Your task to perform on an android device: Open Google Maps and go to "Timeline" Image 0: 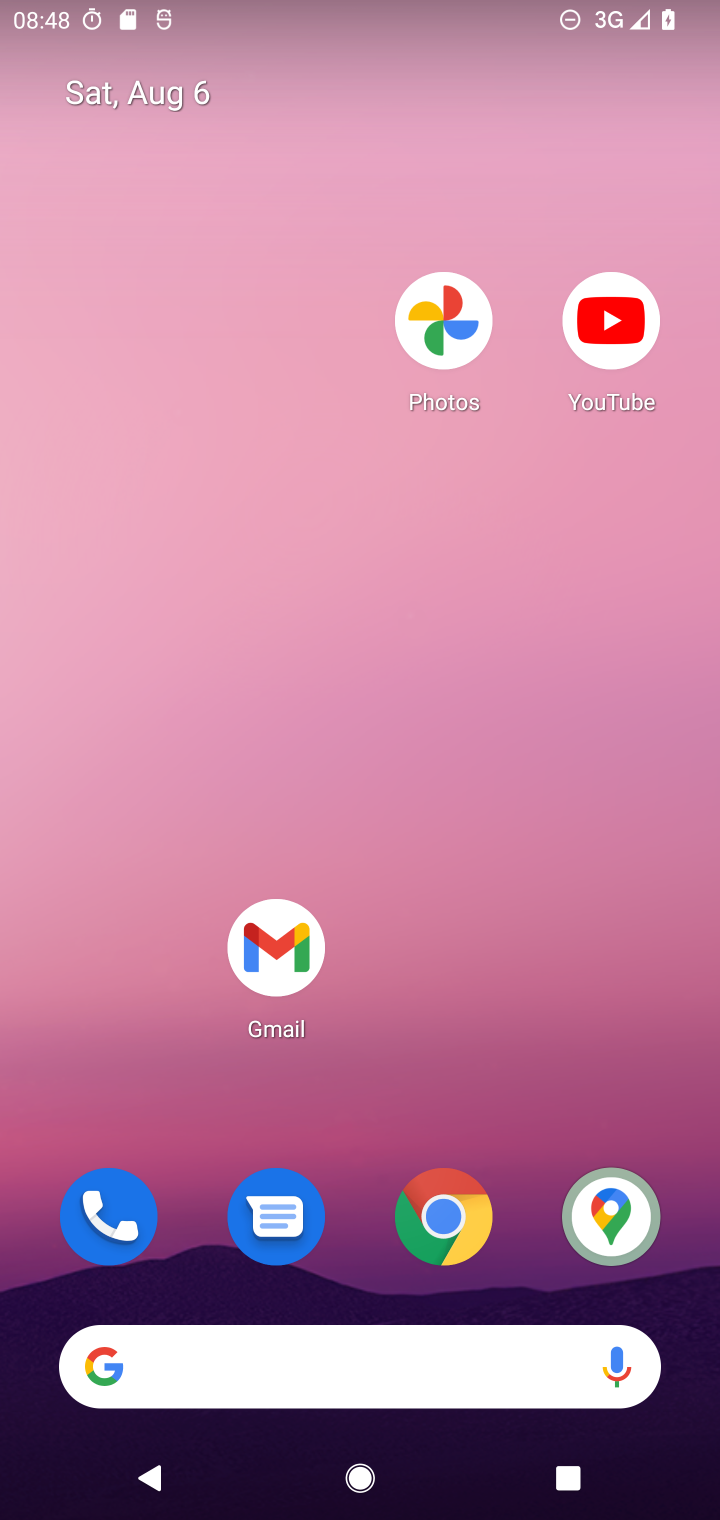
Step 0: drag from (517, 1075) to (565, 260)
Your task to perform on an android device: Open Google Maps and go to "Timeline" Image 1: 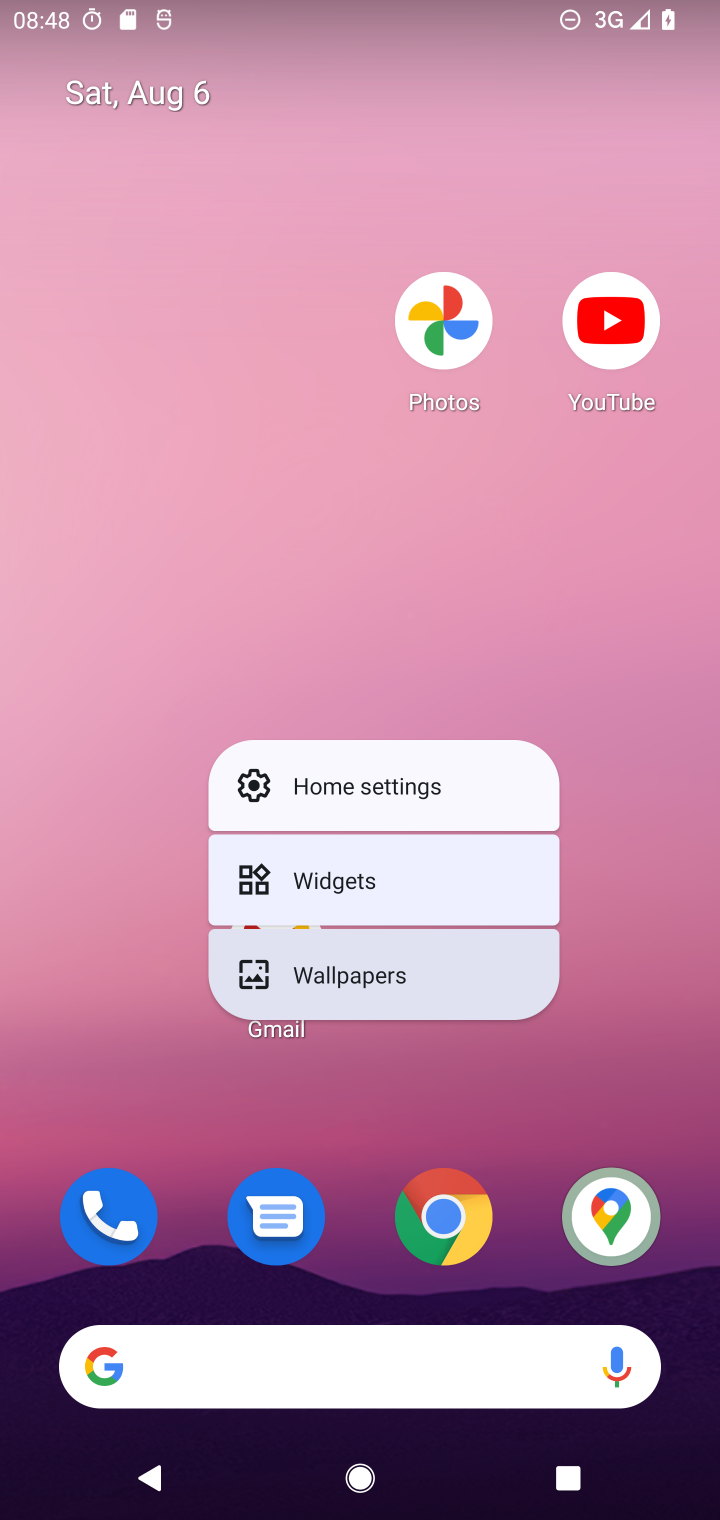
Step 1: click (204, 479)
Your task to perform on an android device: Open Google Maps and go to "Timeline" Image 2: 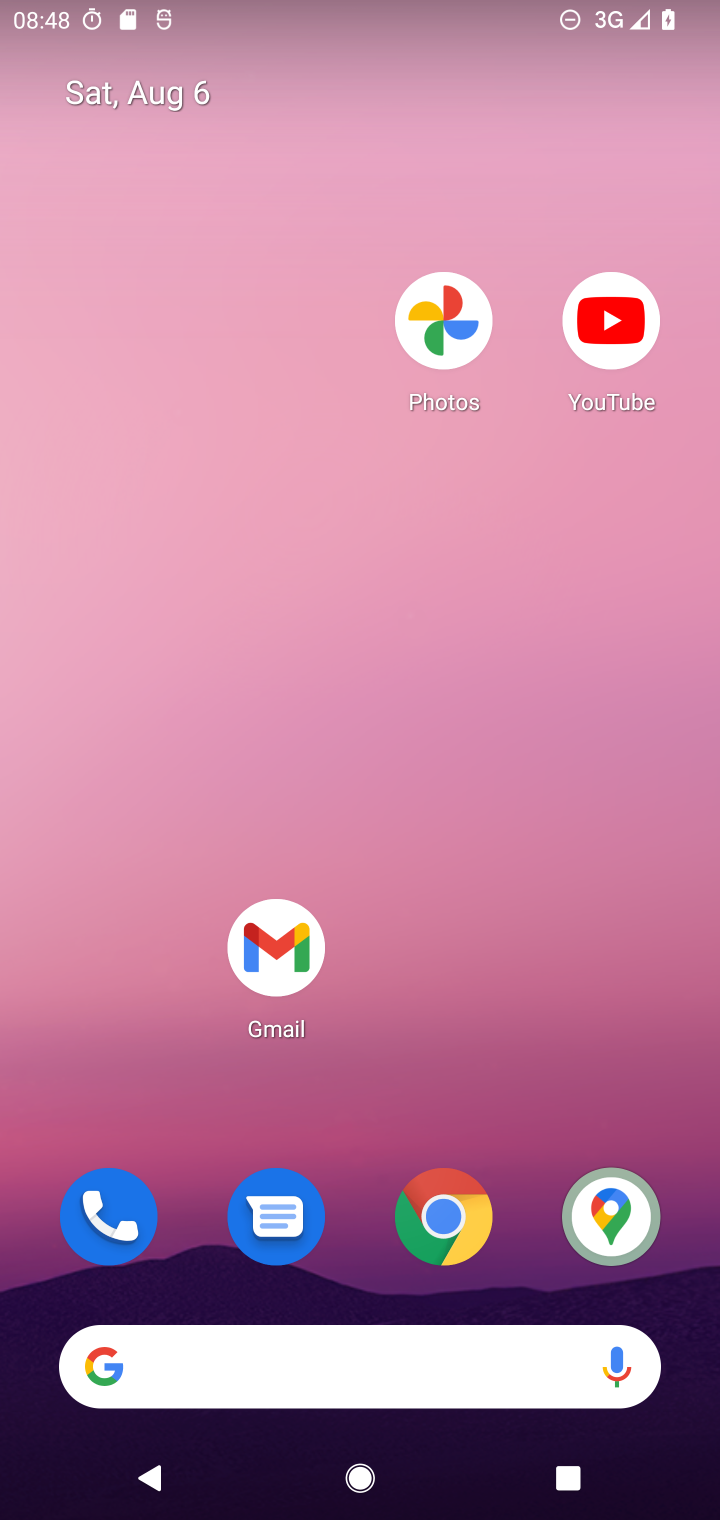
Step 2: click (534, 1110)
Your task to perform on an android device: Open Google Maps and go to "Timeline" Image 3: 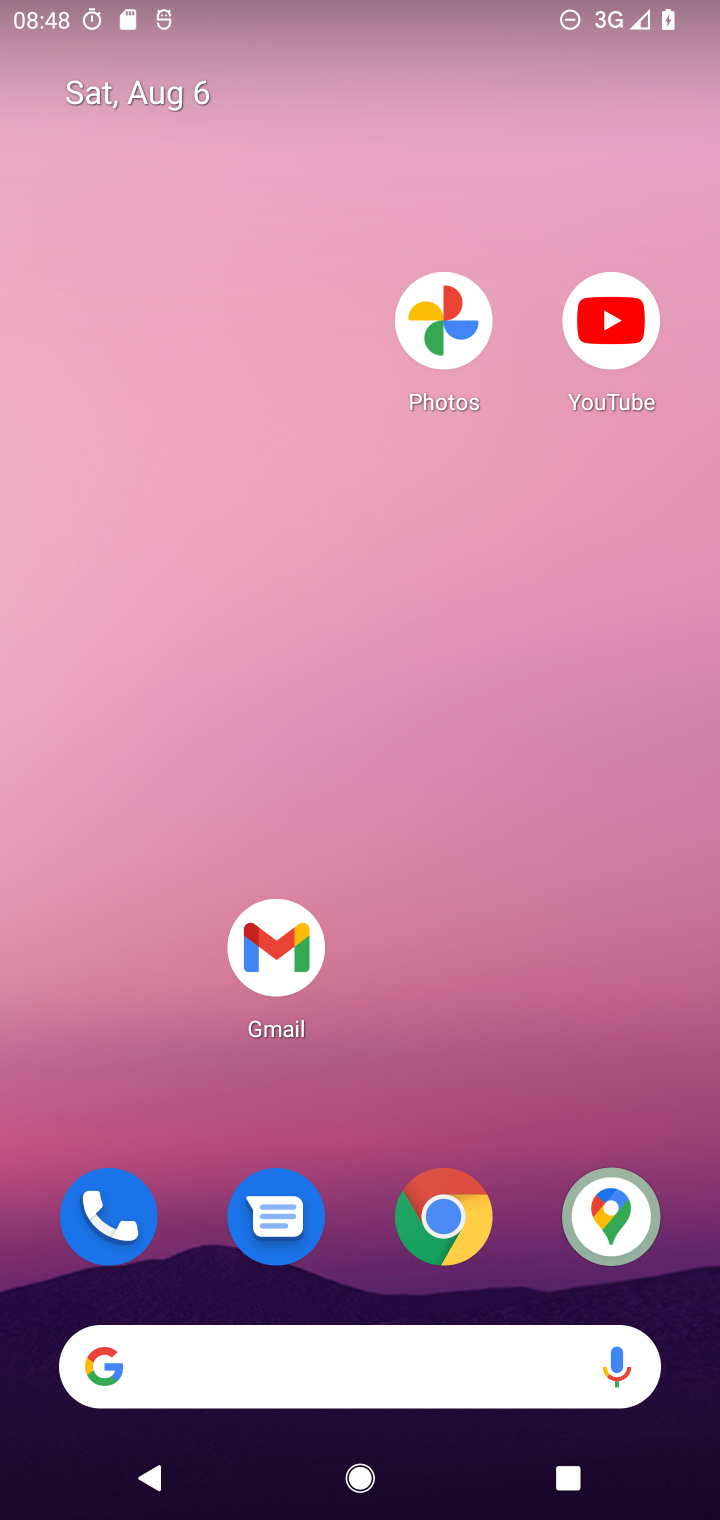
Step 3: drag from (529, 1138) to (522, 128)
Your task to perform on an android device: Open Google Maps and go to "Timeline" Image 4: 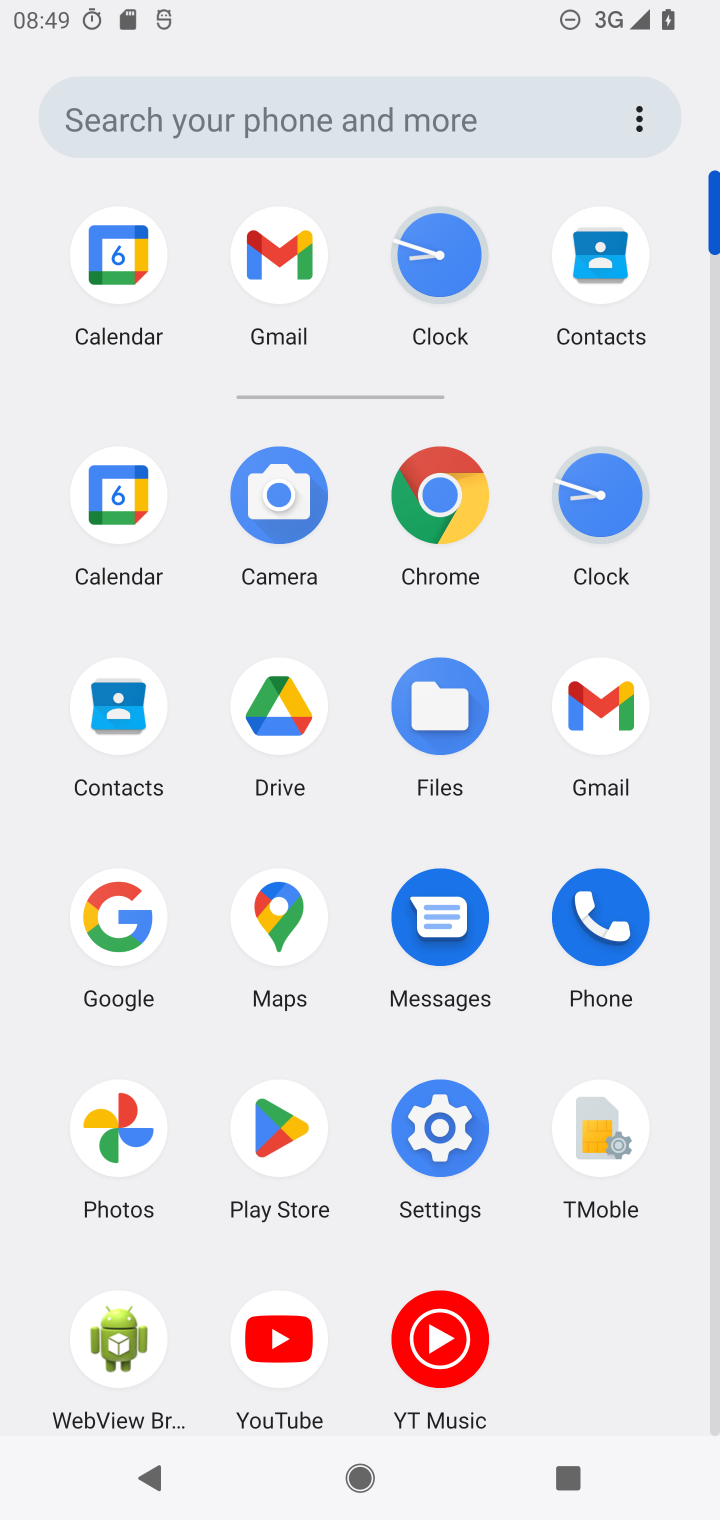
Step 4: click (285, 917)
Your task to perform on an android device: Open Google Maps and go to "Timeline" Image 5: 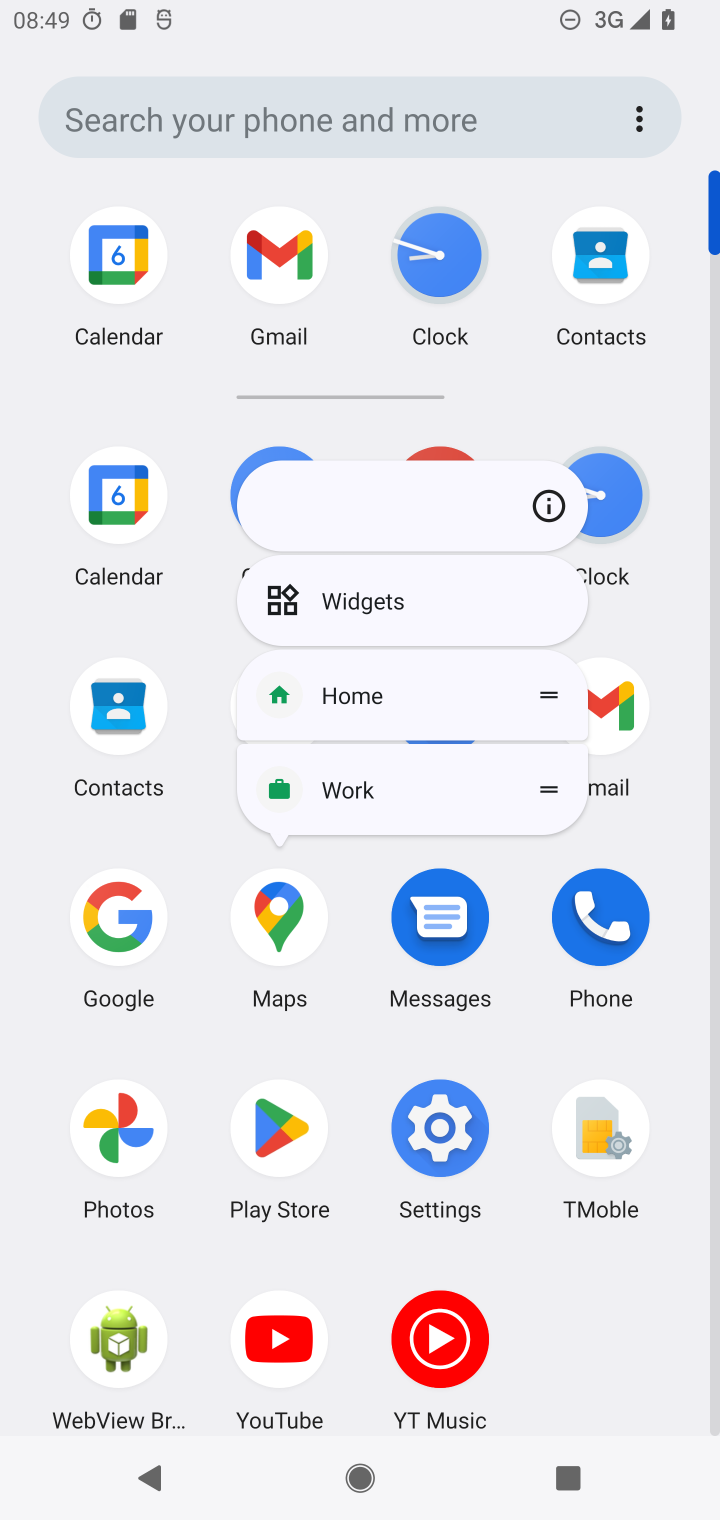
Step 5: click (280, 896)
Your task to perform on an android device: Open Google Maps and go to "Timeline" Image 6: 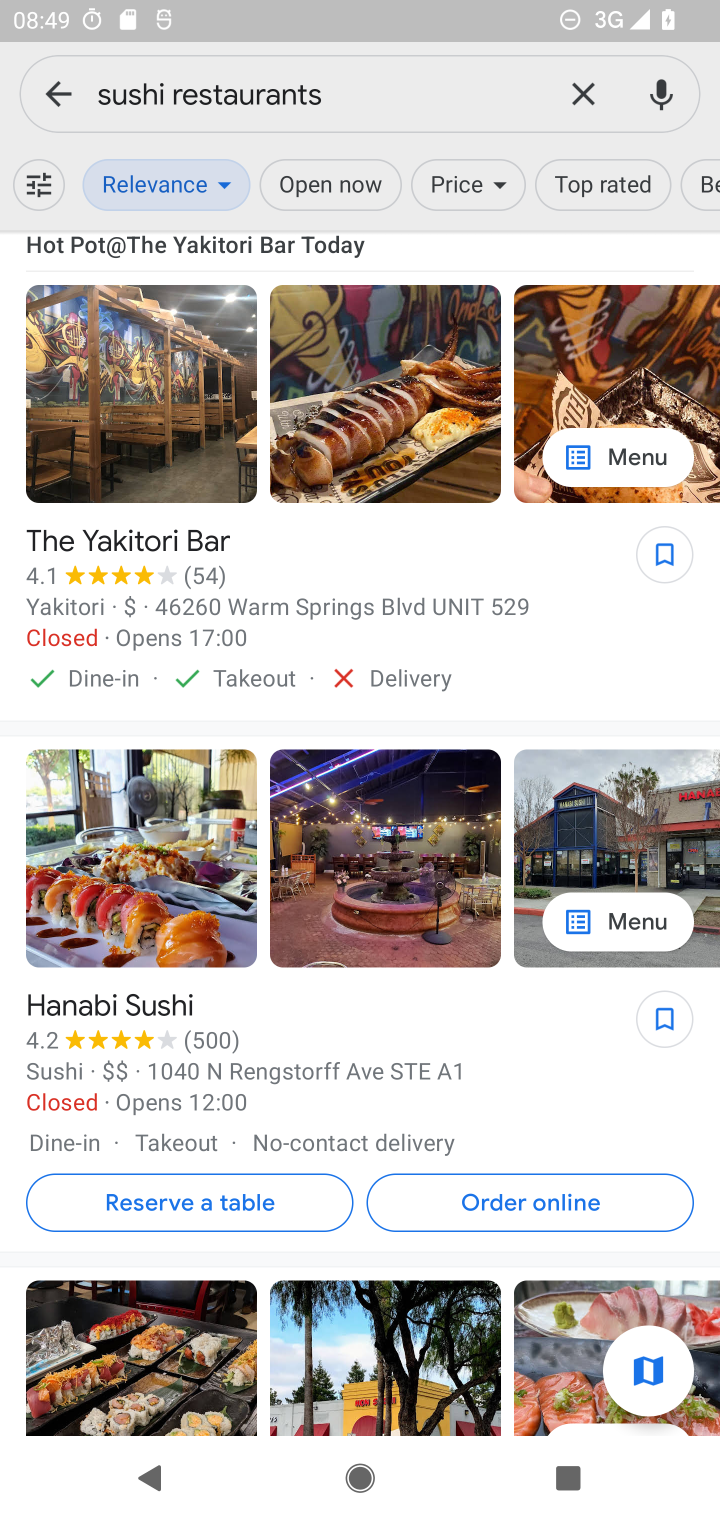
Step 6: press back button
Your task to perform on an android device: Open Google Maps and go to "Timeline" Image 7: 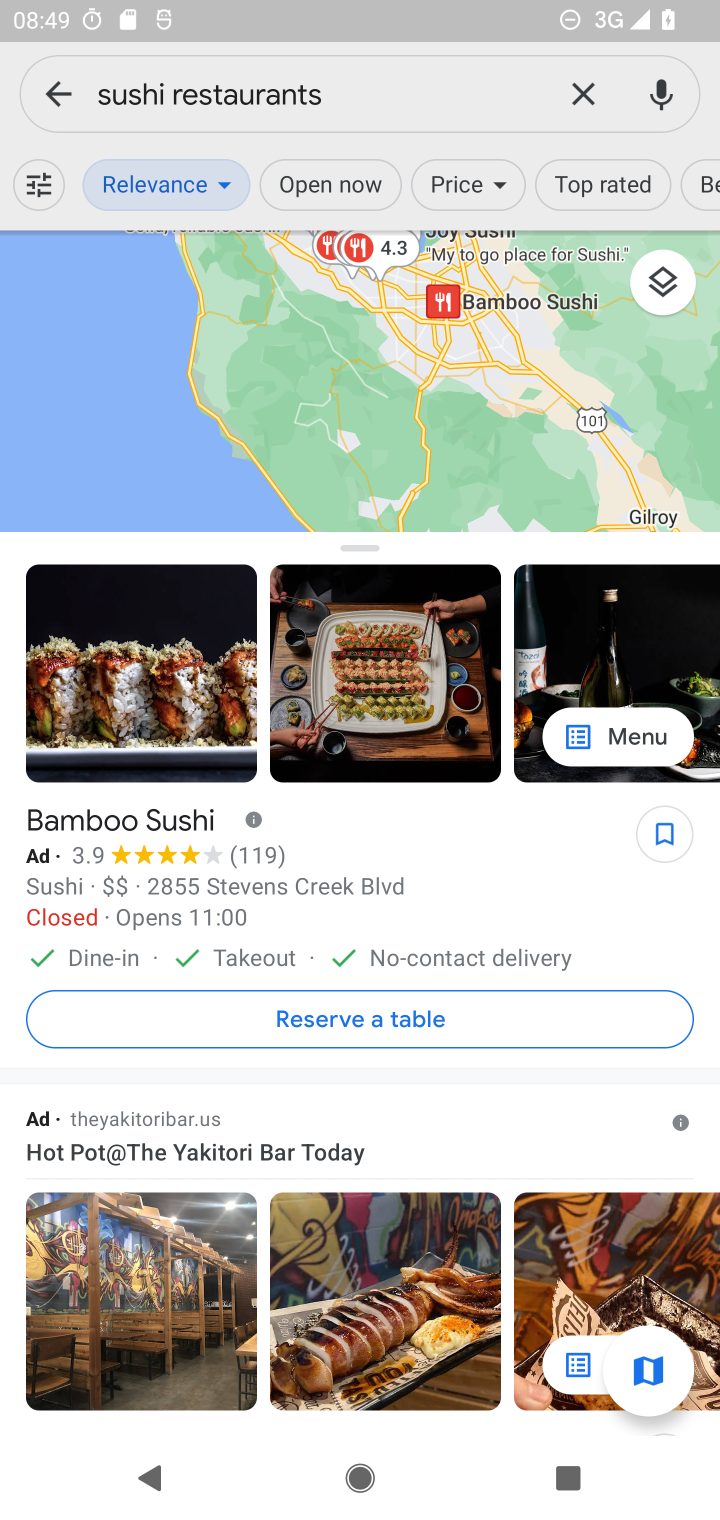
Step 7: press back button
Your task to perform on an android device: Open Google Maps and go to "Timeline" Image 8: 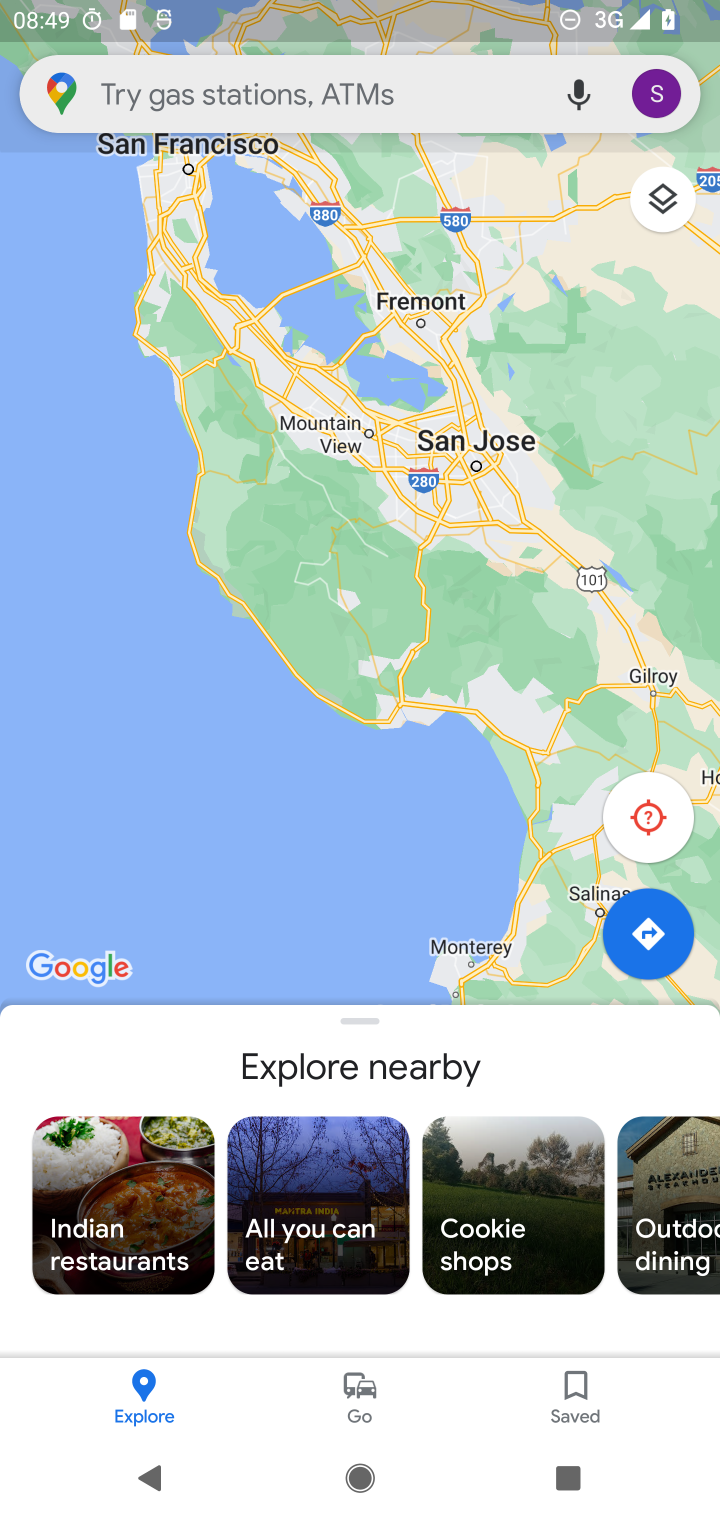
Step 8: click (653, 86)
Your task to perform on an android device: Open Google Maps and go to "Timeline" Image 9: 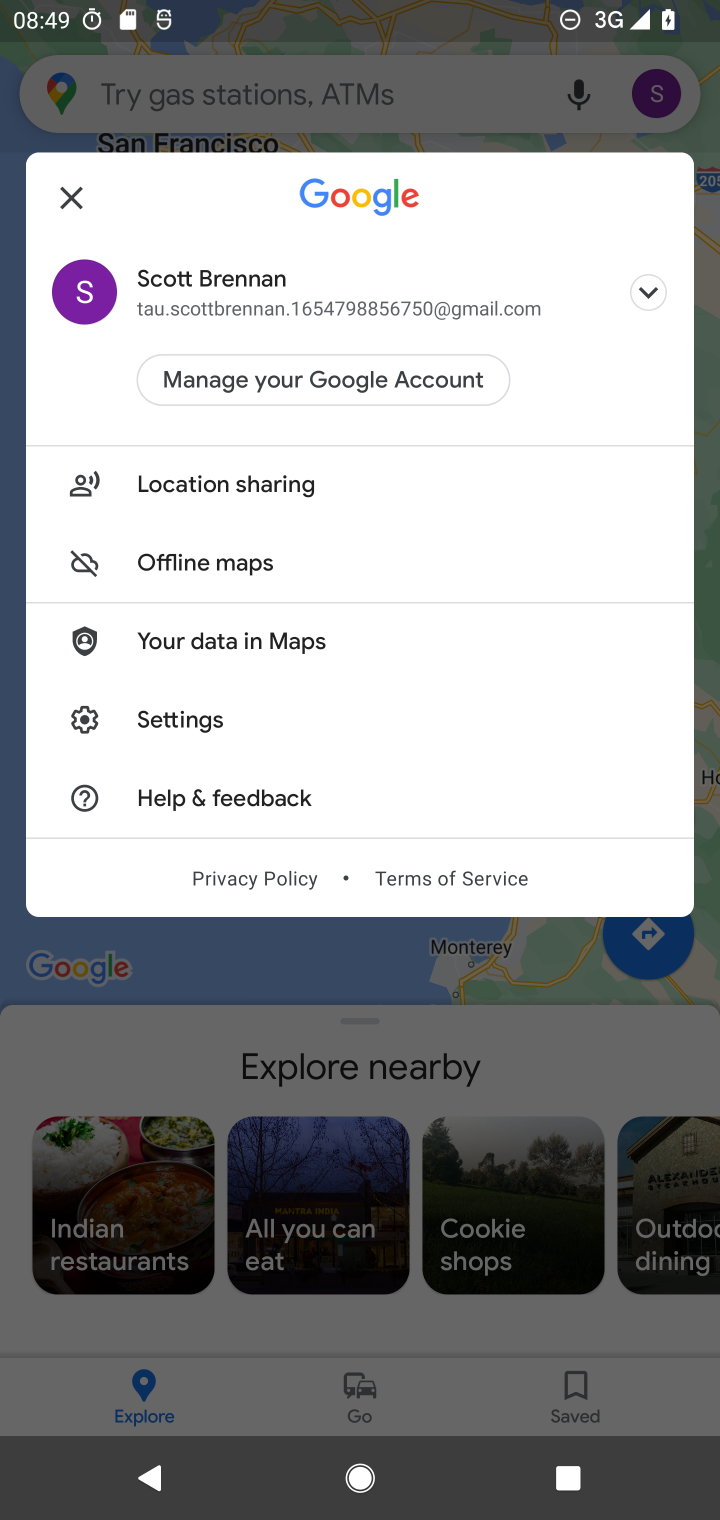
Step 9: click (314, 658)
Your task to perform on an android device: Open Google Maps and go to "Timeline" Image 10: 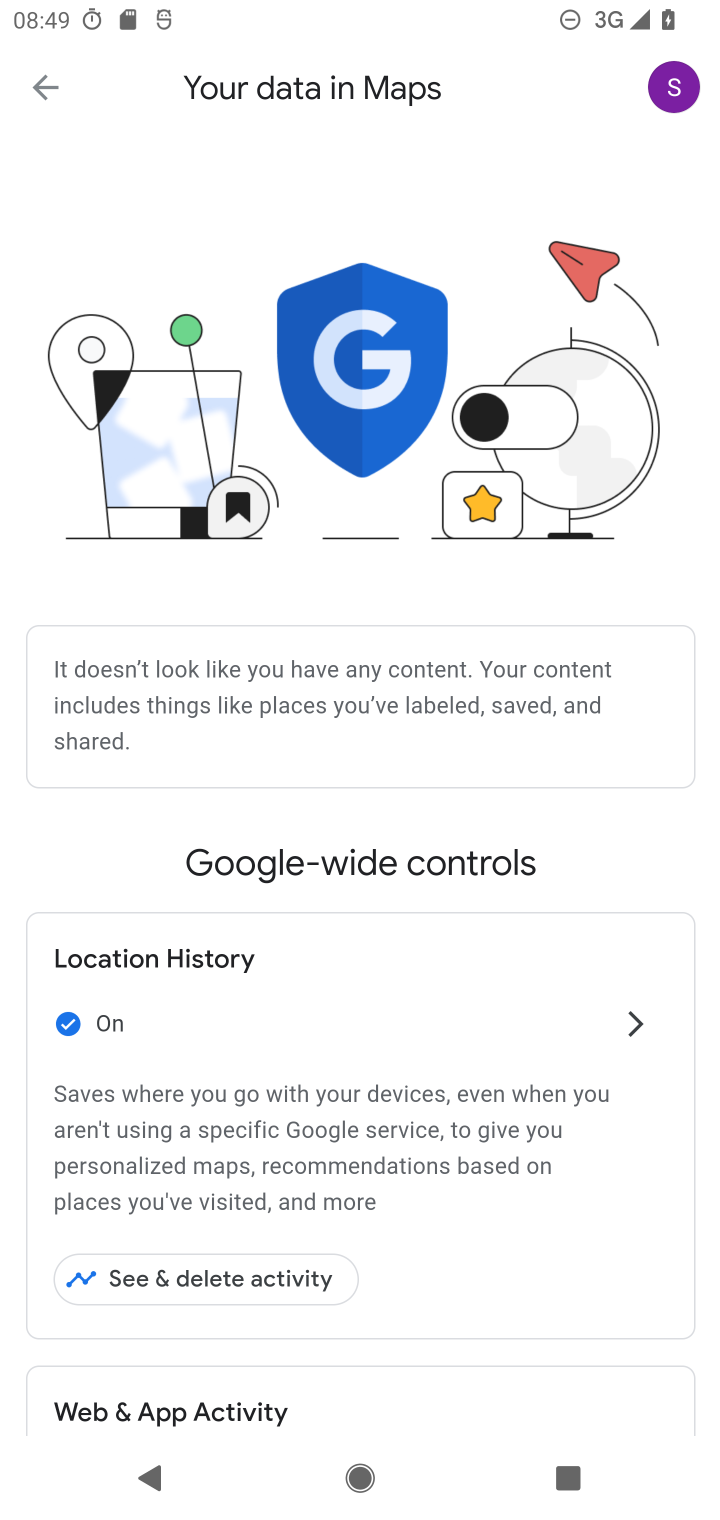
Step 10: task complete